Your task to perform on an android device: toggle notifications settings in the gmail app Image 0: 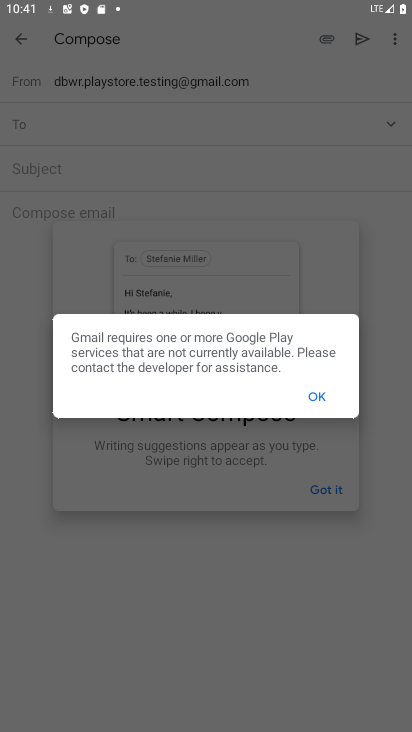
Step 0: press home button
Your task to perform on an android device: toggle notifications settings in the gmail app Image 1: 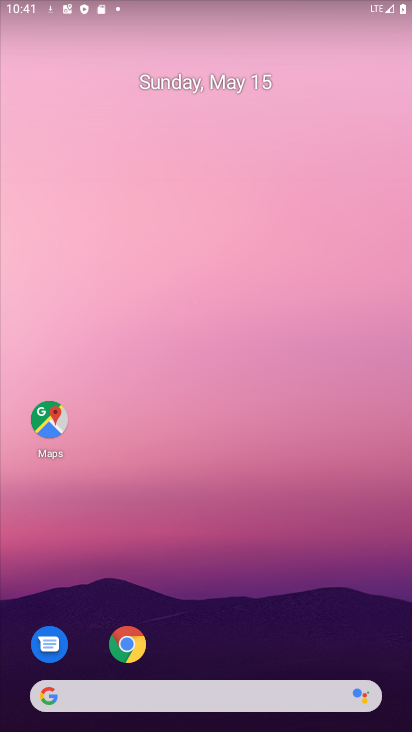
Step 1: drag from (285, 713) to (163, 273)
Your task to perform on an android device: toggle notifications settings in the gmail app Image 2: 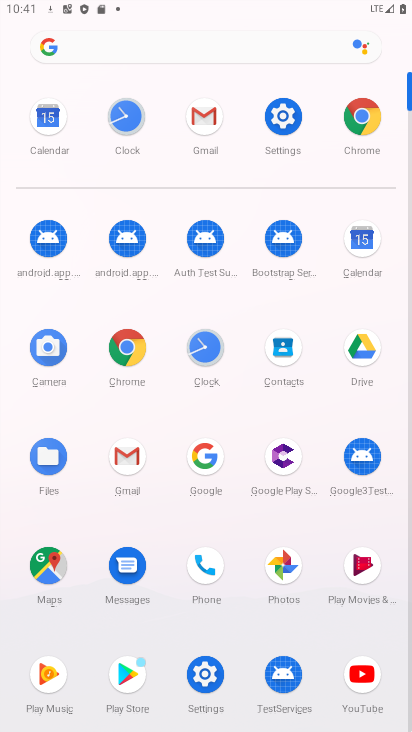
Step 2: click (139, 439)
Your task to perform on an android device: toggle notifications settings in the gmail app Image 3: 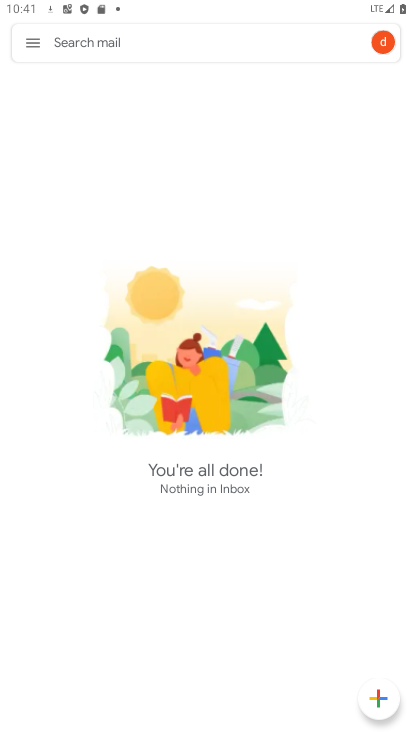
Step 3: click (43, 31)
Your task to perform on an android device: toggle notifications settings in the gmail app Image 4: 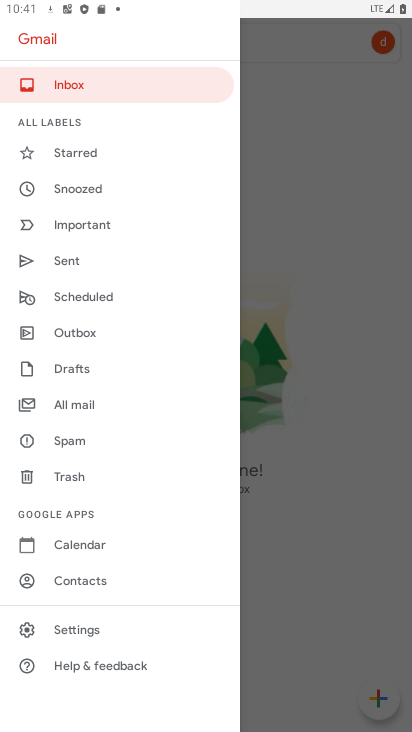
Step 4: click (104, 619)
Your task to perform on an android device: toggle notifications settings in the gmail app Image 5: 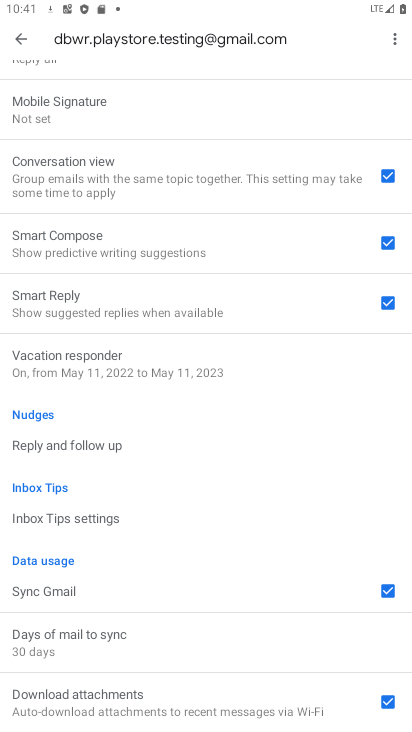
Step 5: drag from (116, 125) to (165, 384)
Your task to perform on an android device: toggle notifications settings in the gmail app Image 6: 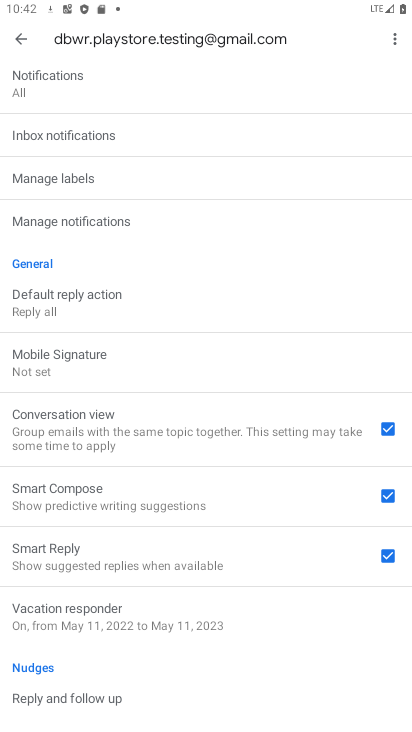
Step 6: click (63, 84)
Your task to perform on an android device: toggle notifications settings in the gmail app Image 7: 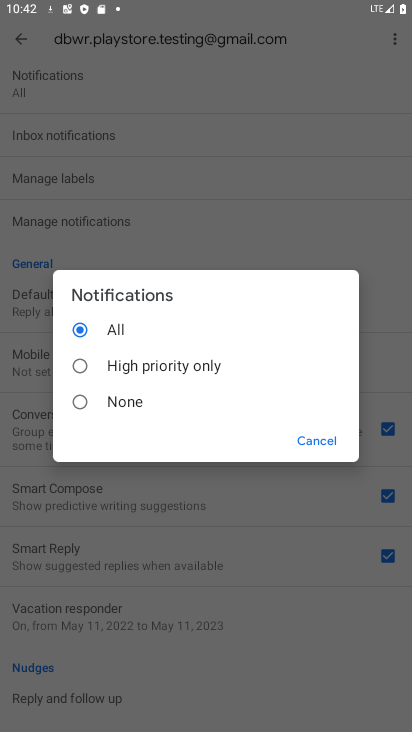
Step 7: task complete